Your task to perform on an android device: Open maps Image 0: 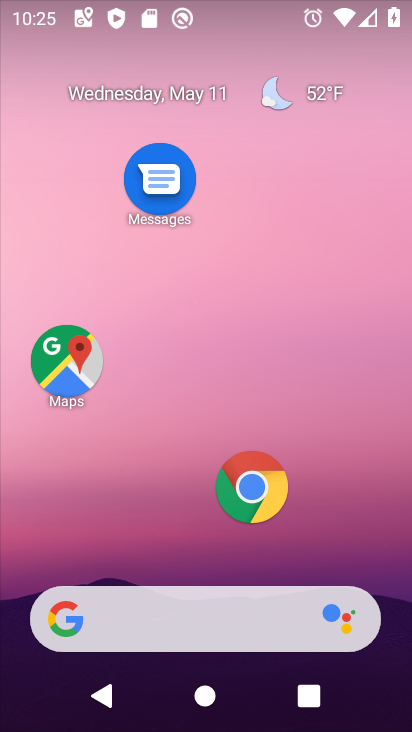
Step 0: click (49, 374)
Your task to perform on an android device: Open maps Image 1: 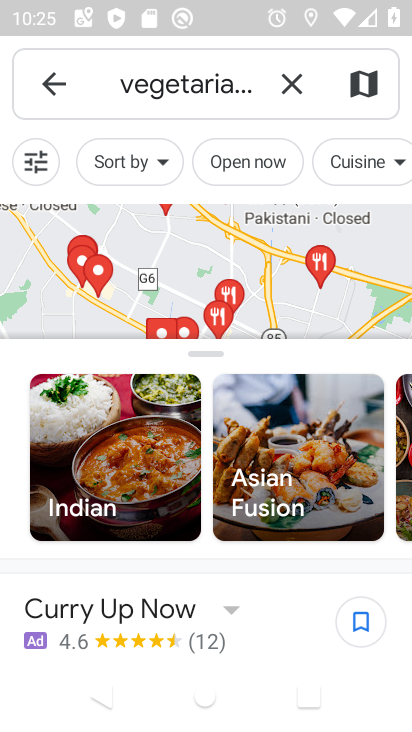
Step 1: task complete